Your task to perform on an android device: Open the stopwatch Image 0: 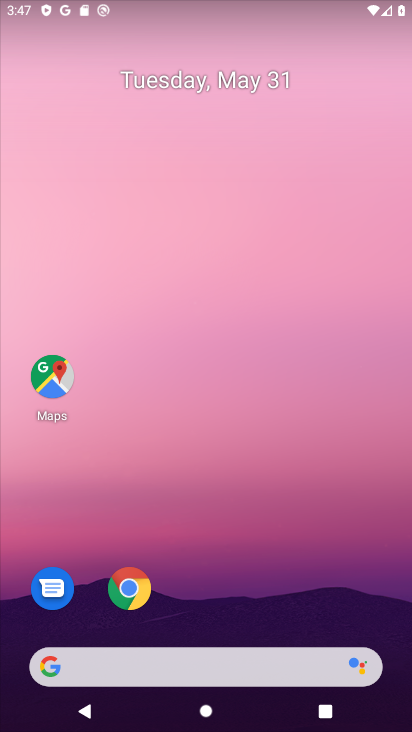
Step 0: drag from (192, 590) to (188, 140)
Your task to perform on an android device: Open the stopwatch Image 1: 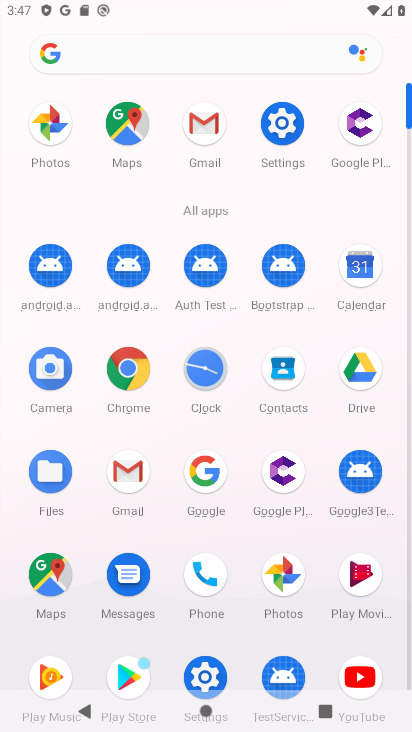
Step 1: click (211, 377)
Your task to perform on an android device: Open the stopwatch Image 2: 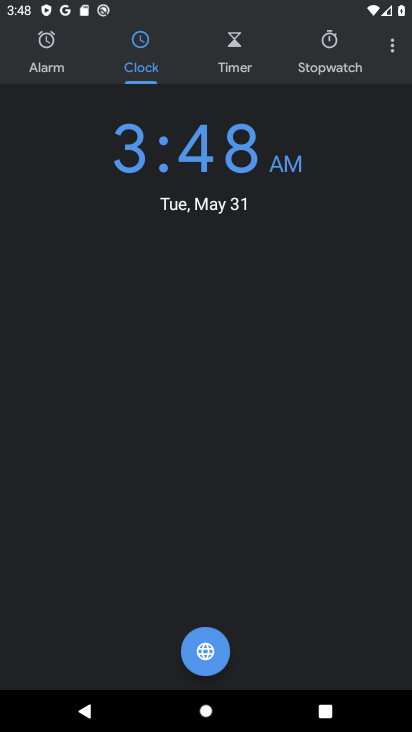
Step 2: click (341, 34)
Your task to perform on an android device: Open the stopwatch Image 3: 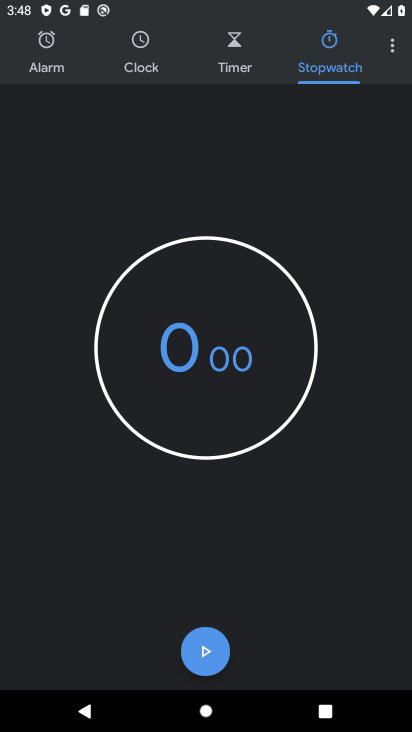
Step 3: task complete